Your task to perform on an android device: What's on my calendar tomorrow? Image 0: 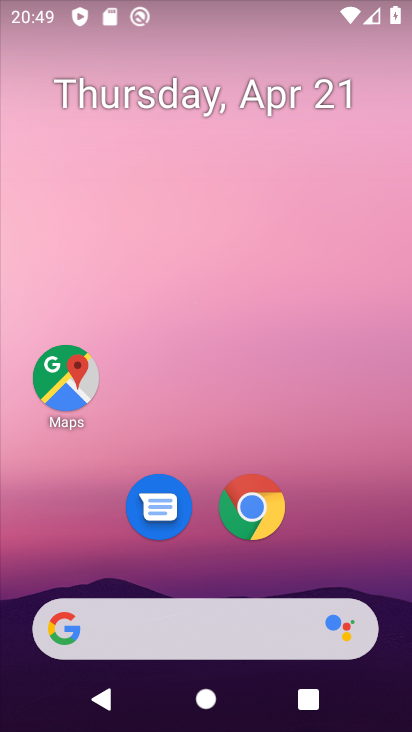
Step 0: drag from (198, 509) to (268, 132)
Your task to perform on an android device: What's on my calendar tomorrow? Image 1: 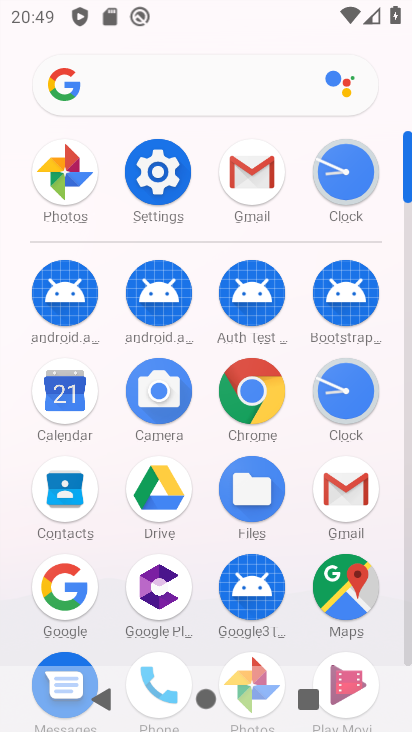
Step 1: click (80, 393)
Your task to perform on an android device: What's on my calendar tomorrow? Image 2: 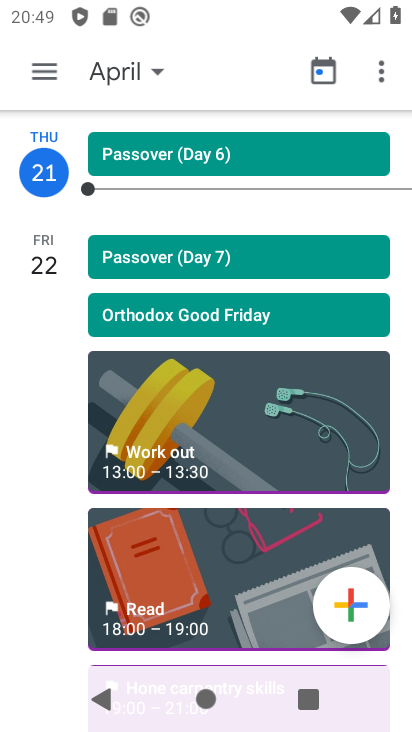
Step 2: task complete